Your task to perform on an android device: toggle location history Image 0: 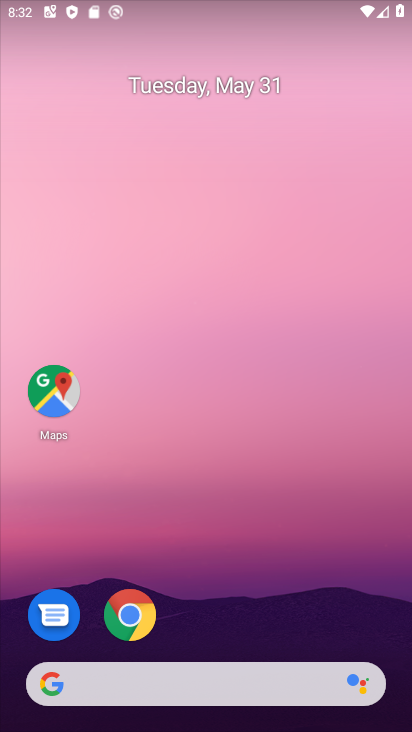
Step 0: click (54, 389)
Your task to perform on an android device: toggle location history Image 1: 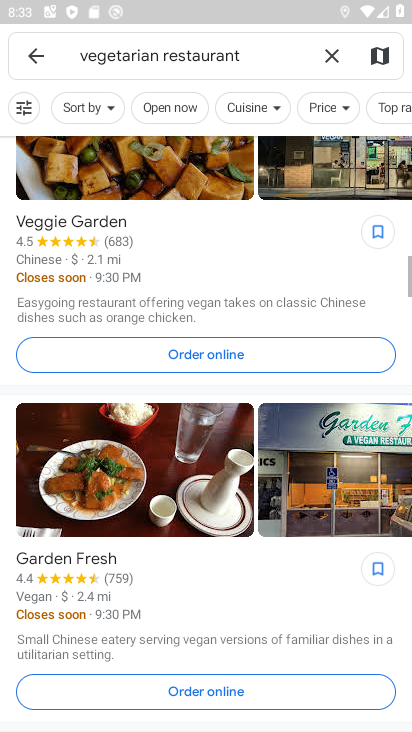
Step 1: click (332, 49)
Your task to perform on an android device: toggle location history Image 2: 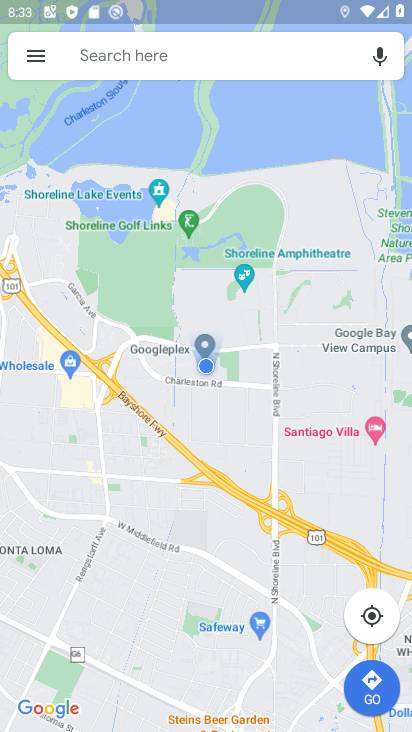
Step 2: click (38, 58)
Your task to perform on an android device: toggle location history Image 3: 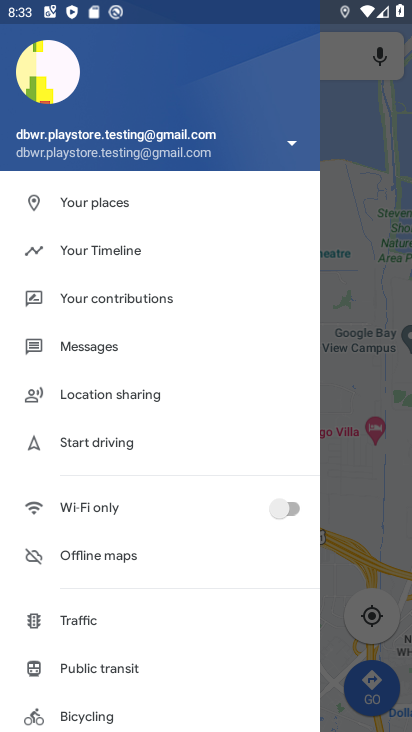
Step 3: drag from (210, 627) to (217, 306)
Your task to perform on an android device: toggle location history Image 4: 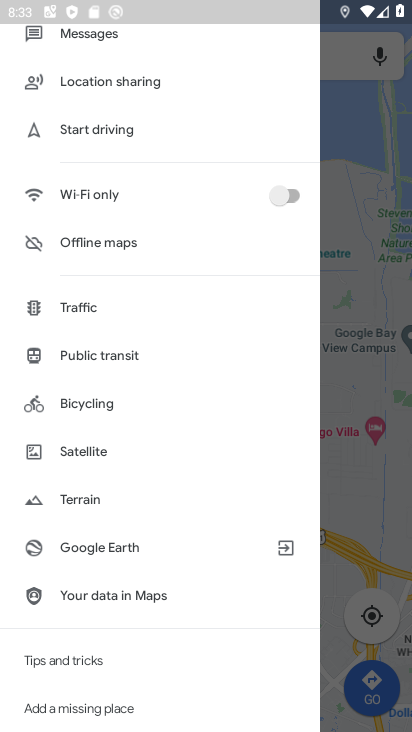
Step 4: drag from (189, 592) to (190, 307)
Your task to perform on an android device: toggle location history Image 5: 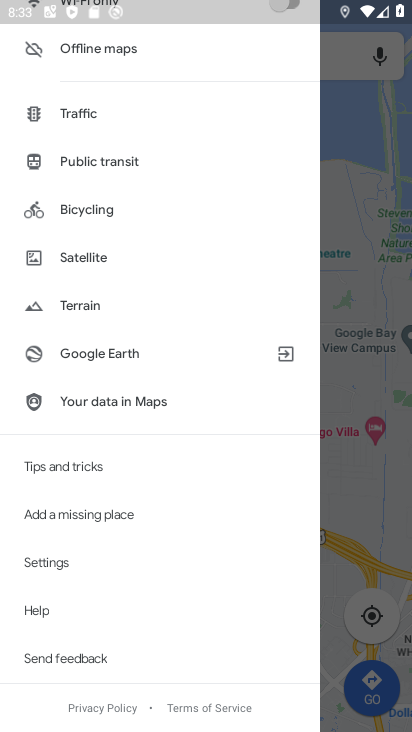
Step 5: click (55, 559)
Your task to perform on an android device: toggle location history Image 6: 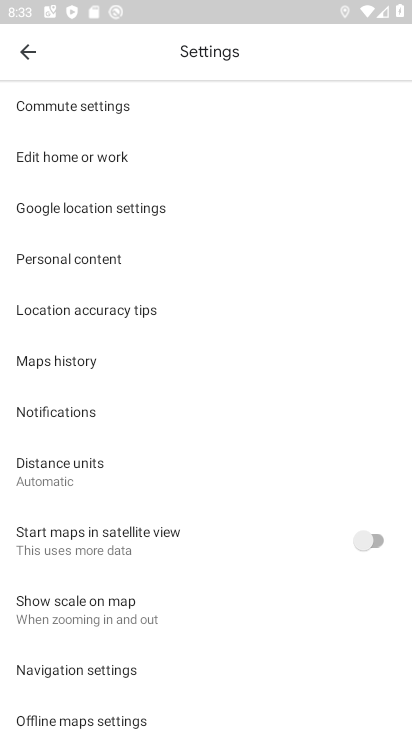
Step 6: click (78, 254)
Your task to perform on an android device: toggle location history Image 7: 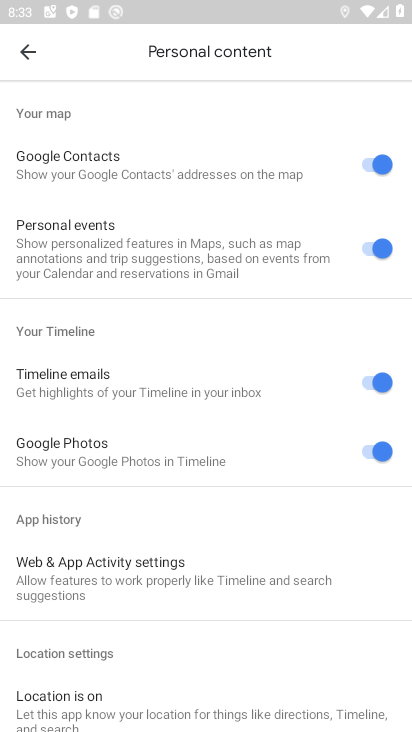
Step 7: drag from (280, 596) to (263, 227)
Your task to perform on an android device: toggle location history Image 8: 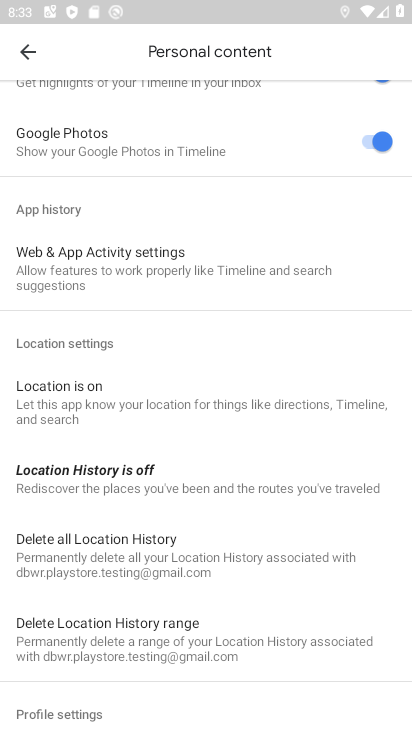
Step 8: click (105, 476)
Your task to perform on an android device: toggle location history Image 9: 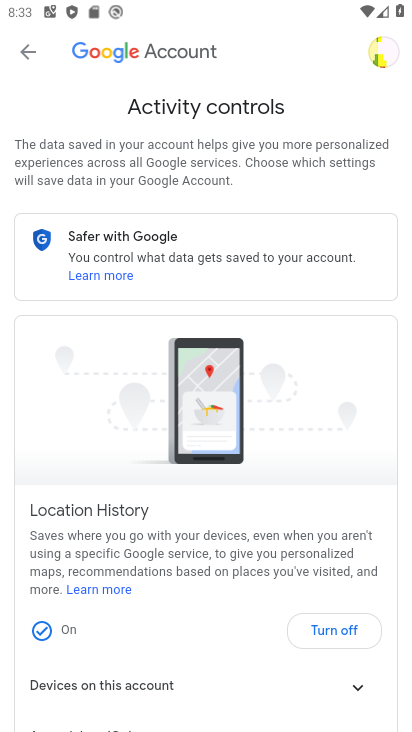
Step 9: click (338, 629)
Your task to perform on an android device: toggle location history Image 10: 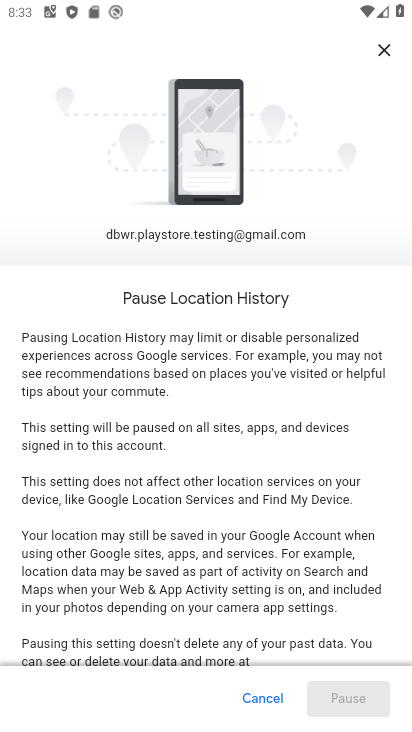
Step 10: drag from (329, 632) to (223, 184)
Your task to perform on an android device: toggle location history Image 11: 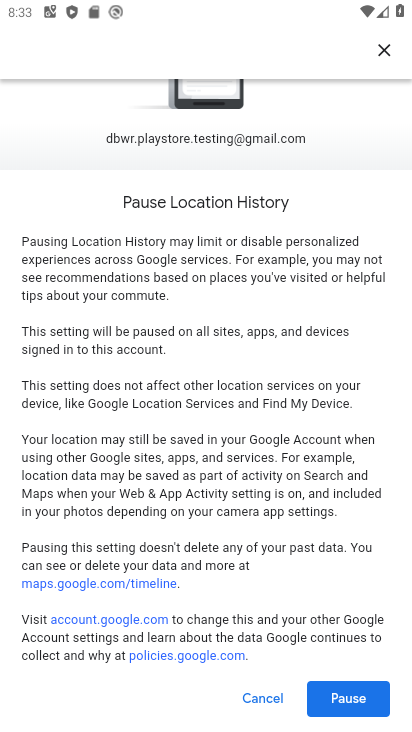
Step 11: click (350, 694)
Your task to perform on an android device: toggle location history Image 12: 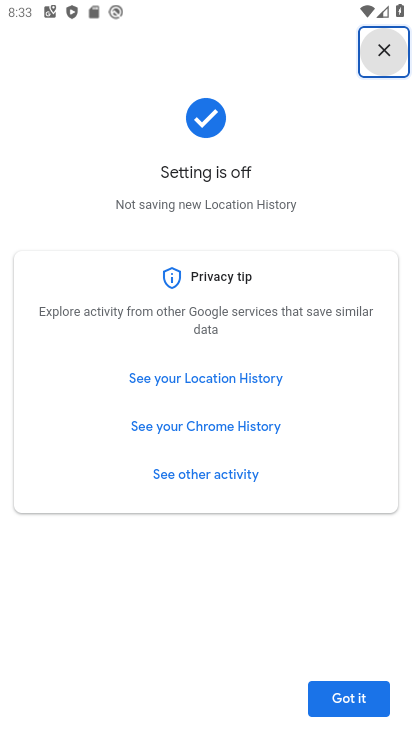
Step 12: click (350, 694)
Your task to perform on an android device: toggle location history Image 13: 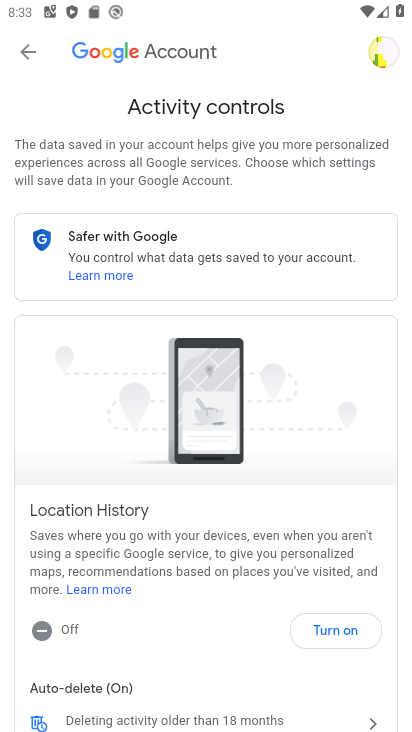
Step 13: task complete